Your task to perform on an android device: read, delete, or share a saved page in the chrome app Image 0: 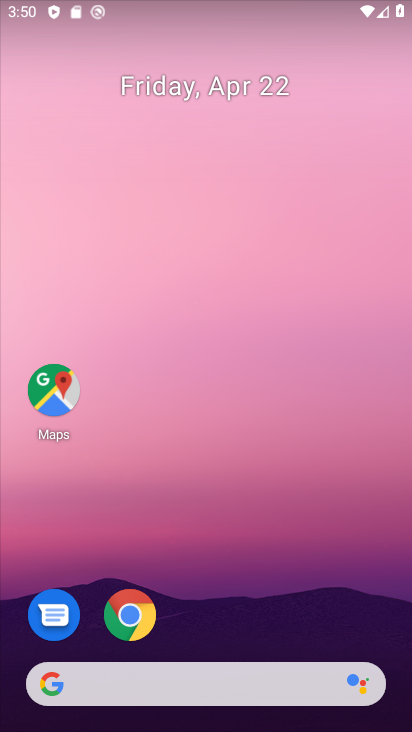
Step 0: click (132, 631)
Your task to perform on an android device: read, delete, or share a saved page in the chrome app Image 1: 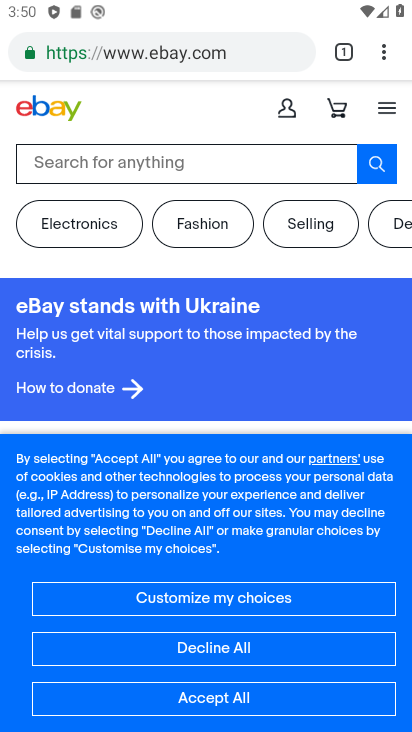
Step 1: task complete